Your task to perform on an android device: turn pop-ups off in chrome Image 0: 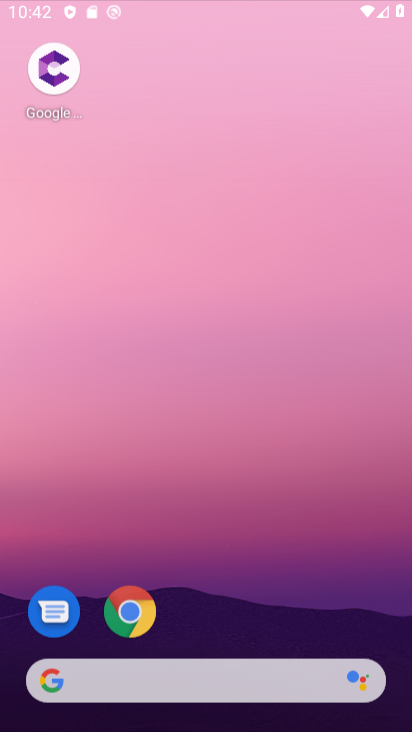
Step 0: press home button
Your task to perform on an android device: turn pop-ups off in chrome Image 1: 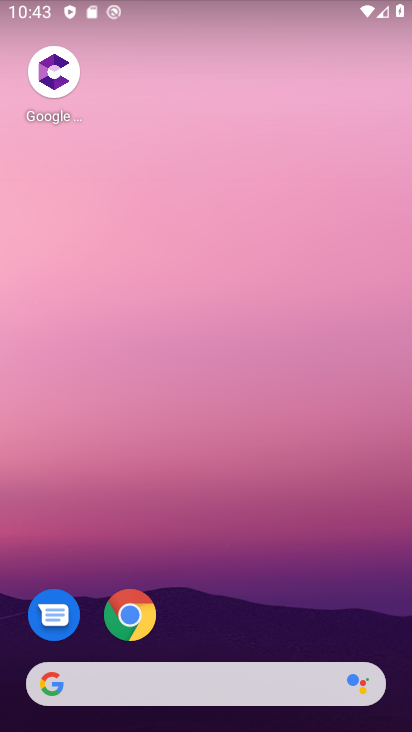
Step 1: drag from (216, 696) to (371, 220)
Your task to perform on an android device: turn pop-ups off in chrome Image 2: 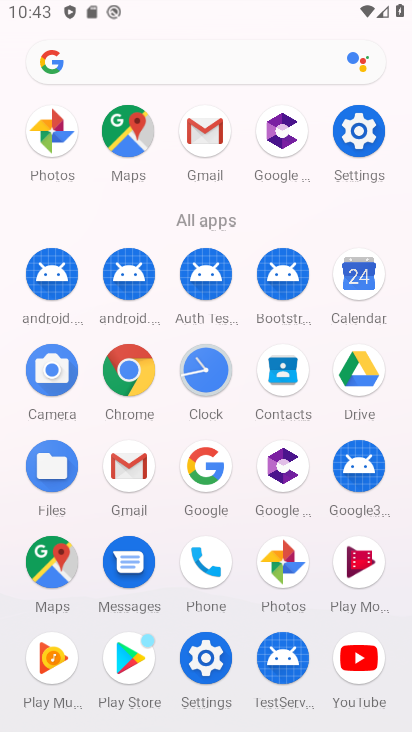
Step 2: click (118, 381)
Your task to perform on an android device: turn pop-ups off in chrome Image 3: 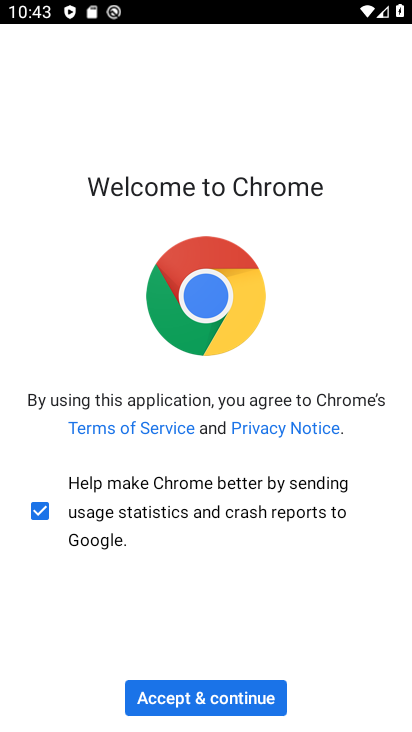
Step 3: click (207, 694)
Your task to perform on an android device: turn pop-ups off in chrome Image 4: 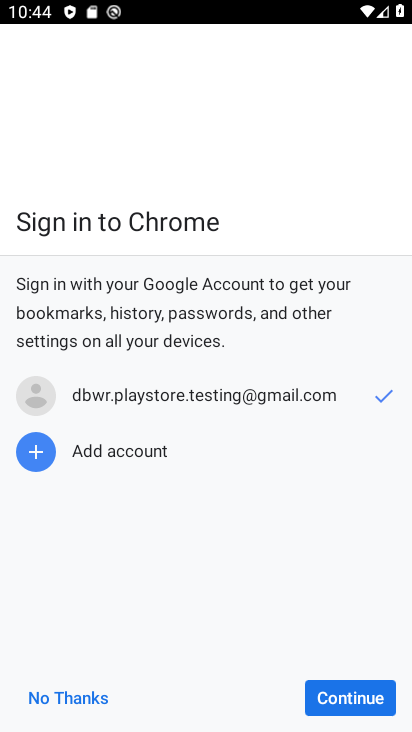
Step 4: click (344, 697)
Your task to perform on an android device: turn pop-ups off in chrome Image 5: 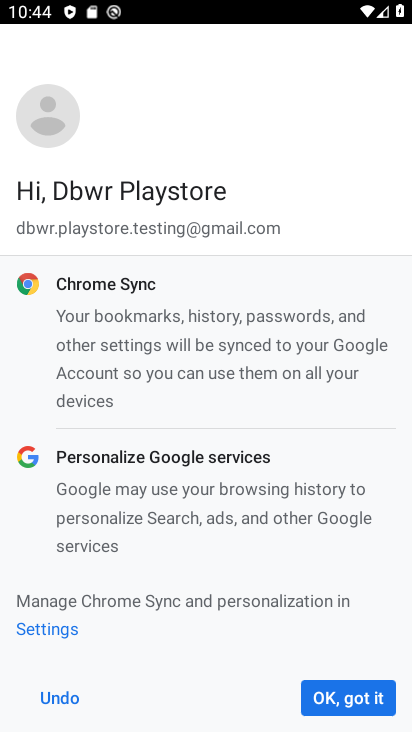
Step 5: click (340, 710)
Your task to perform on an android device: turn pop-ups off in chrome Image 6: 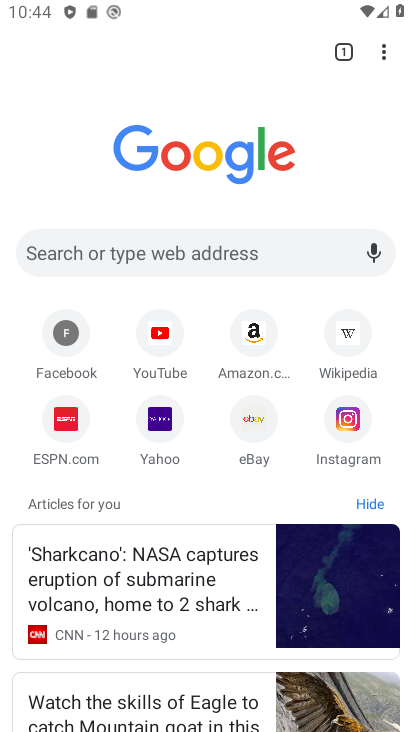
Step 6: click (393, 54)
Your task to perform on an android device: turn pop-ups off in chrome Image 7: 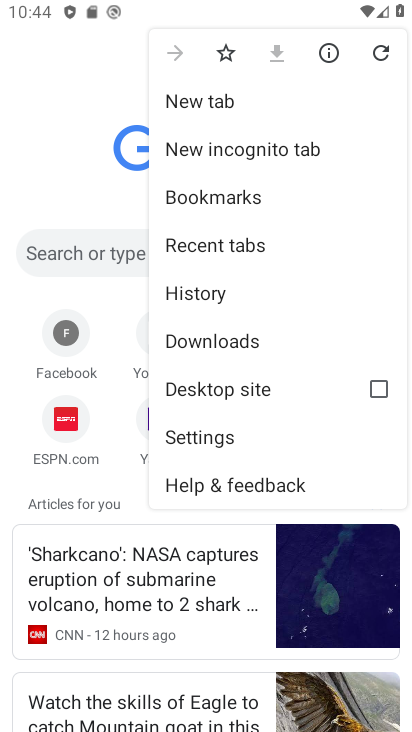
Step 7: click (180, 444)
Your task to perform on an android device: turn pop-ups off in chrome Image 8: 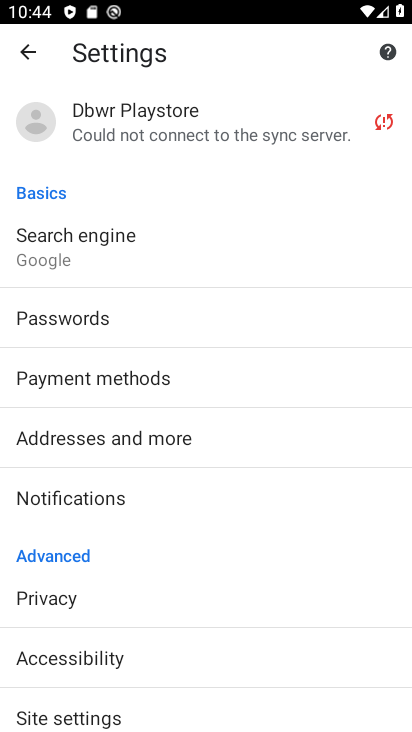
Step 8: click (49, 709)
Your task to perform on an android device: turn pop-ups off in chrome Image 9: 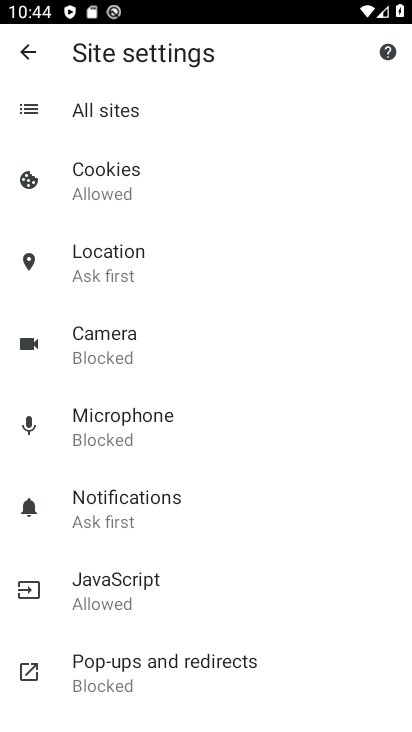
Step 9: click (152, 654)
Your task to perform on an android device: turn pop-ups off in chrome Image 10: 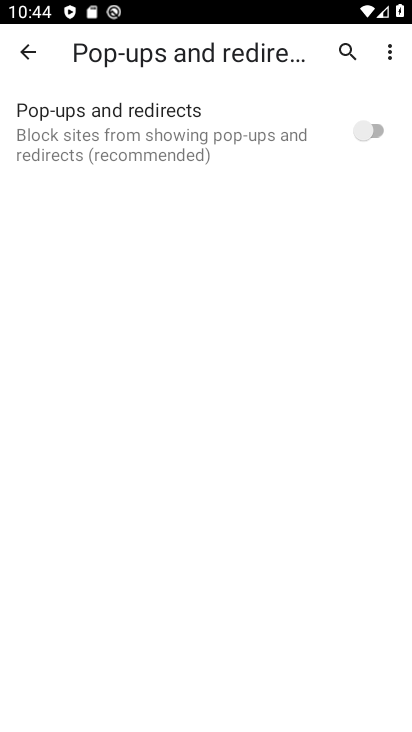
Step 10: click (370, 136)
Your task to perform on an android device: turn pop-ups off in chrome Image 11: 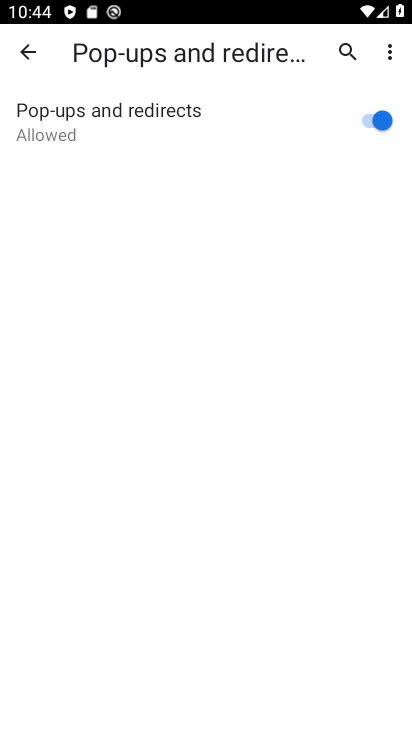
Step 11: click (376, 132)
Your task to perform on an android device: turn pop-ups off in chrome Image 12: 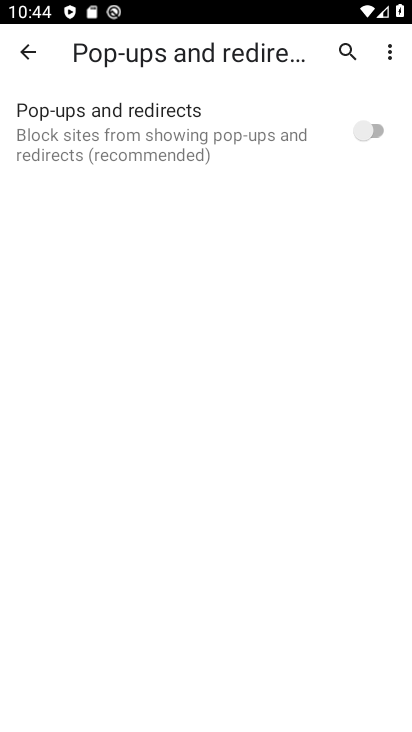
Step 12: task complete